Your task to perform on an android device: Open Amazon Image 0: 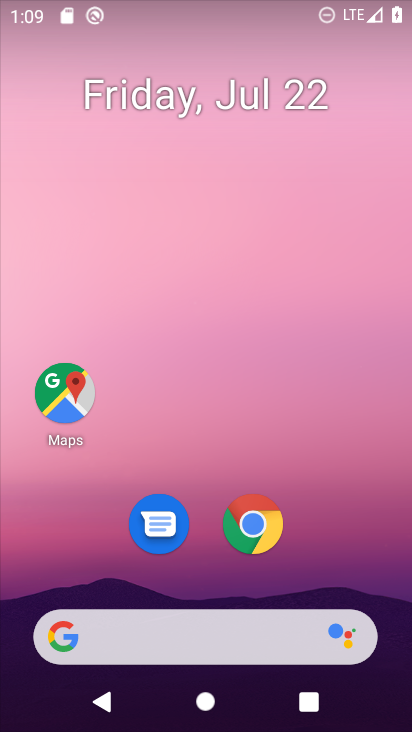
Step 0: click (254, 524)
Your task to perform on an android device: Open Amazon Image 1: 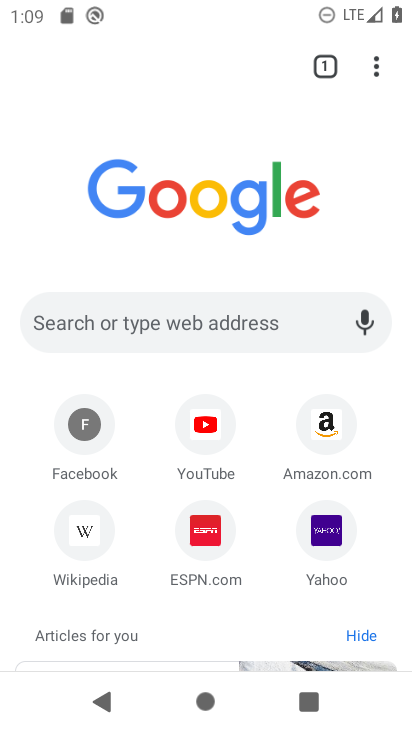
Step 1: click (317, 435)
Your task to perform on an android device: Open Amazon Image 2: 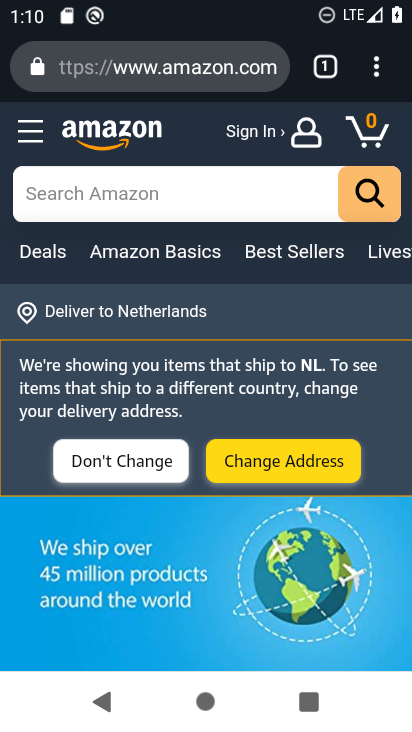
Step 2: task complete